Your task to perform on an android device: change timer sound Image 0: 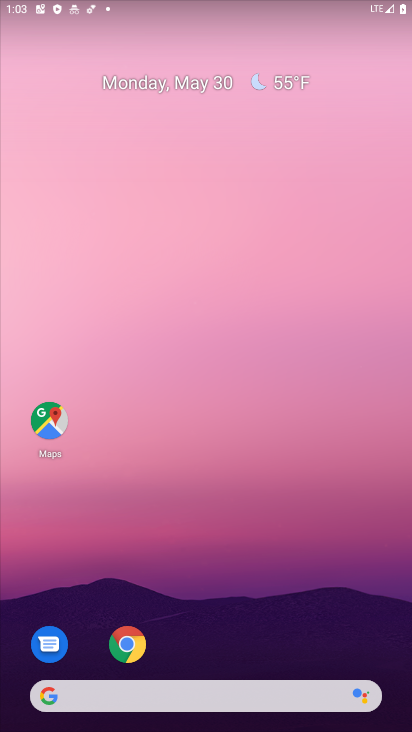
Step 0: drag from (280, 628) to (122, 158)
Your task to perform on an android device: change timer sound Image 1: 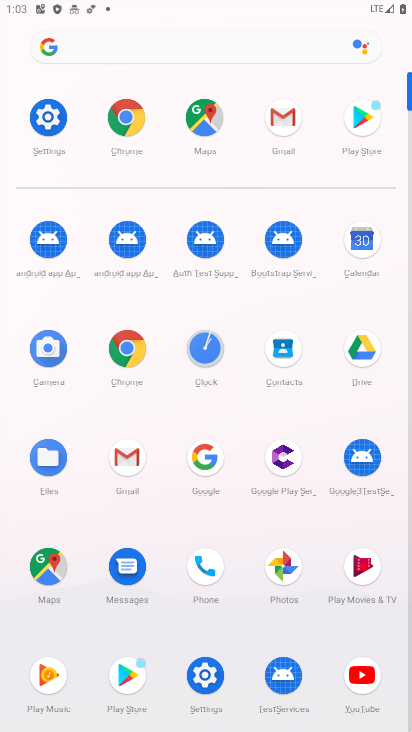
Step 1: click (35, 148)
Your task to perform on an android device: change timer sound Image 2: 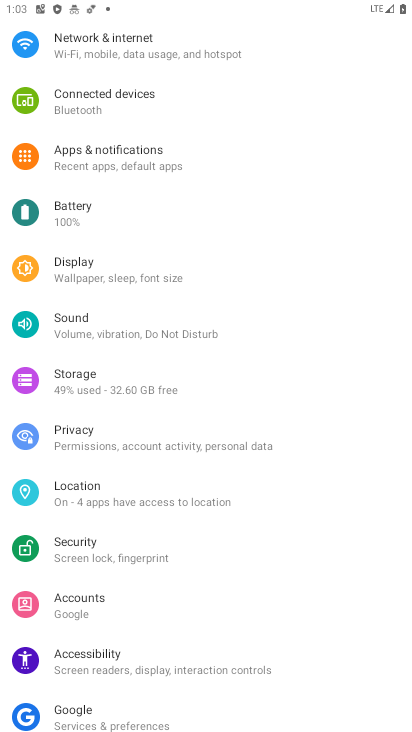
Step 2: press home button
Your task to perform on an android device: change timer sound Image 3: 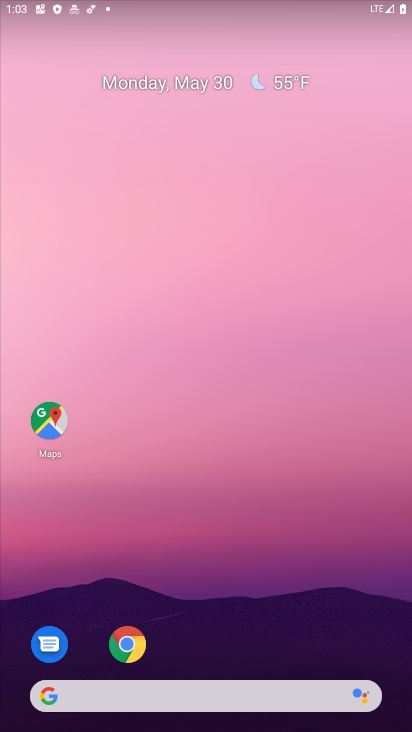
Step 3: drag from (298, 637) to (169, 144)
Your task to perform on an android device: change timer sound Image 4: 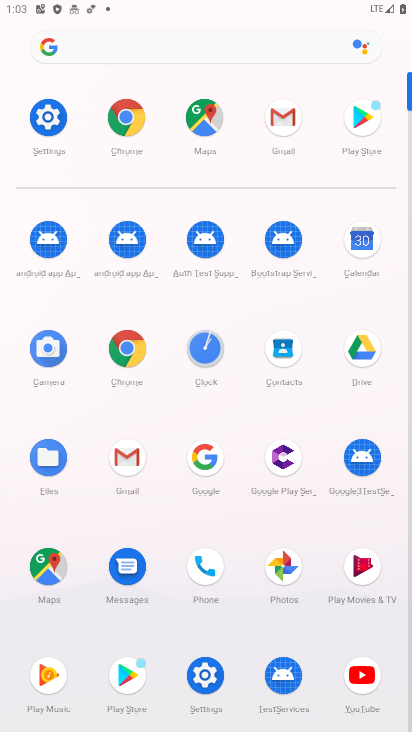
Step 4: click (37, 154)
Your task to perform on an android device: change timer sound Image 5: 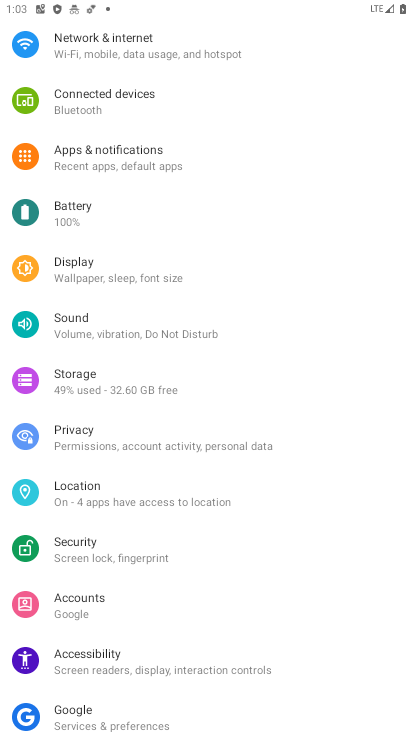
Step 5: click (96, 338)
Your task to perform on an android device: change timer sound Image 6: 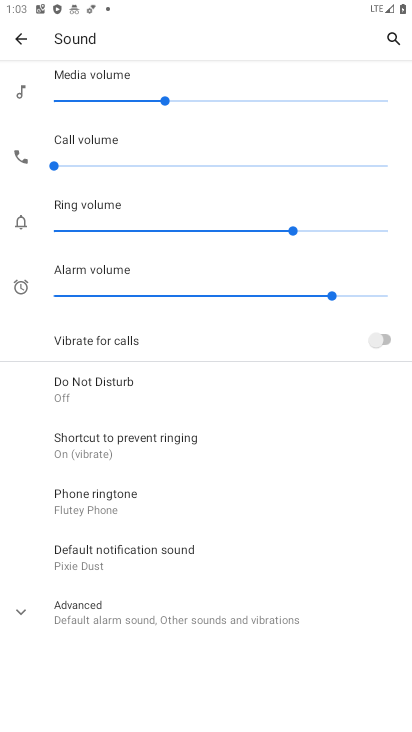
Step 6: task complete